Your task to perform on an android device: Go to wifi settings Image 0: 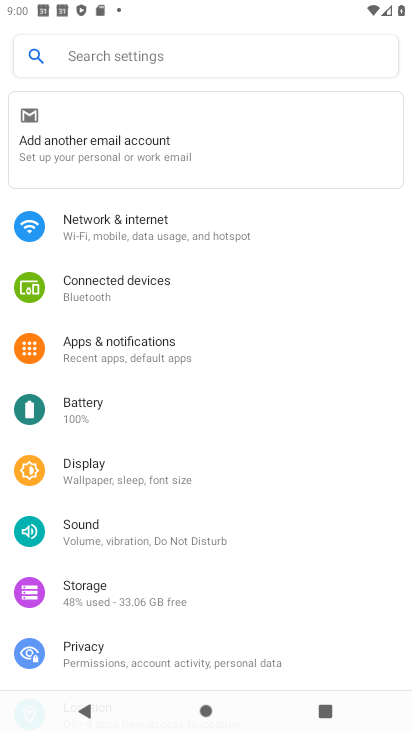
Step 0: drag from (231, 16) to (214, 464)
Your task to perform on an android device: Go to wifi settings Image 1: 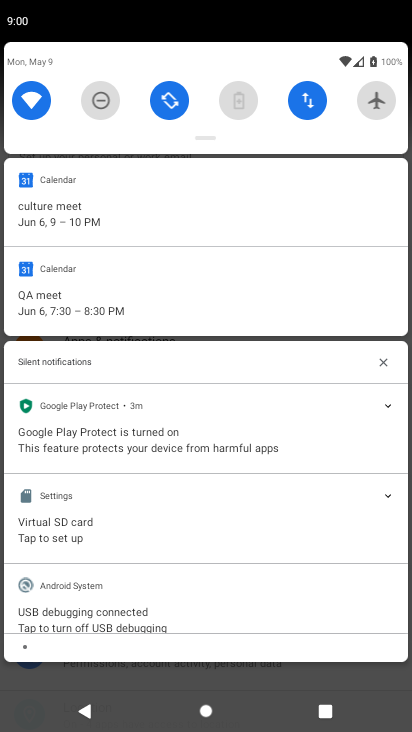
Step 1: click (32, 94)
Your task to perform on an android device: Go to wifi settings Image 2: 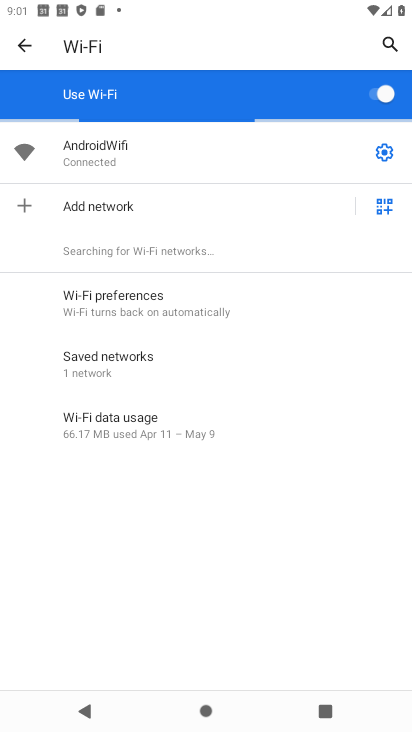
Step 2: task complete